Your task to perform on an android device: turn off translation in the chrome app Image 0: 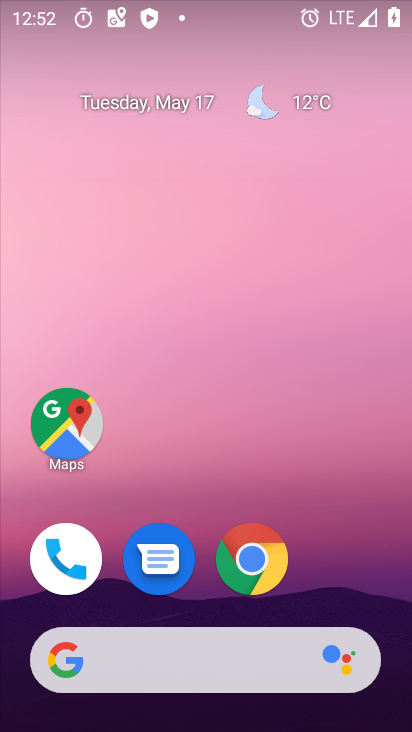
Step 0: click (255, 564)
Your task to perform on an android device: turn off translation in the chrome app Image 1: 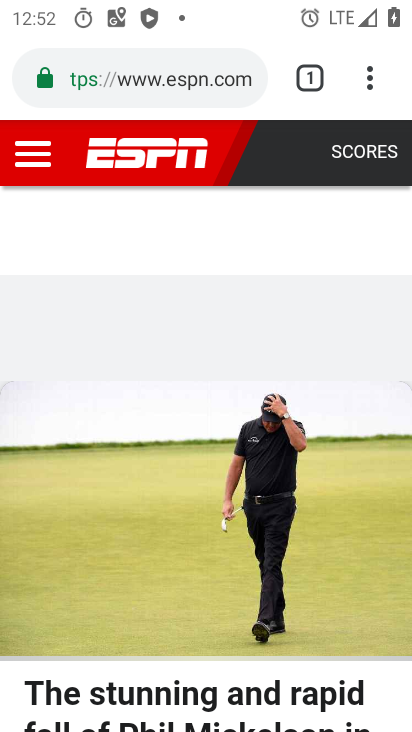
Step 1: drag from (370, 74) to (221, 604)
Your task to perform on an android device: turn off translation in the chrome app Image 2: 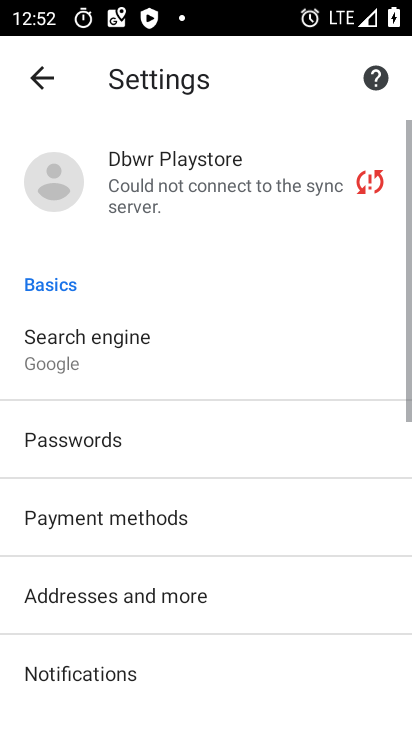
Step 2: drag from (226, 592) to (314, 97)
Your task to perform on an android device: turn off translation in the chrome app Image 3: 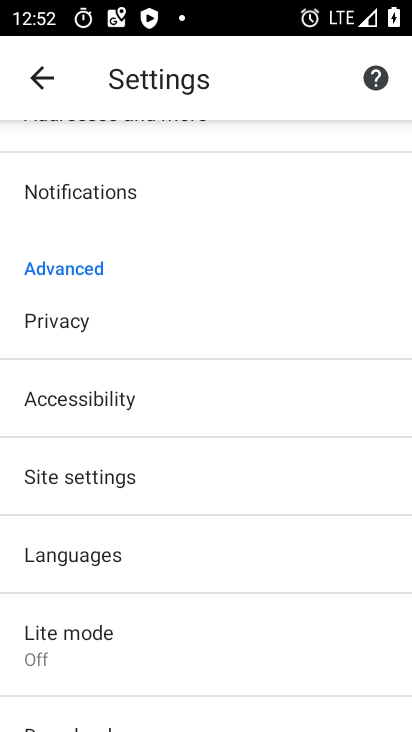
Step 3: drag from (199, 615) to (282, 409)
Your task to perform on an android device: turn off translation in the chrome app Image 4: 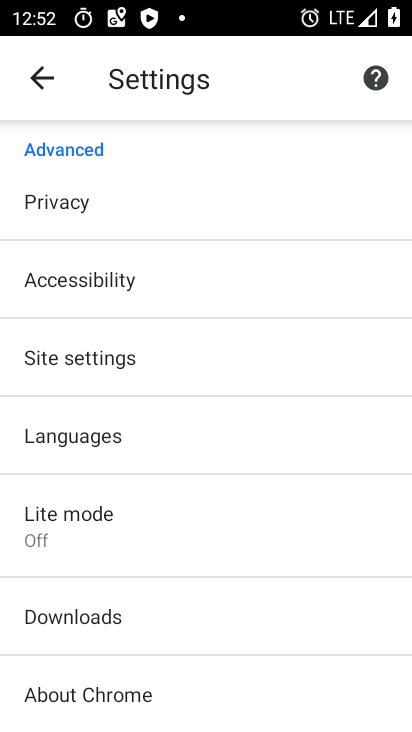
Step 4: click (85, 423)
Your task to perform on an android device: turn off translation in the chrome app Image 5: 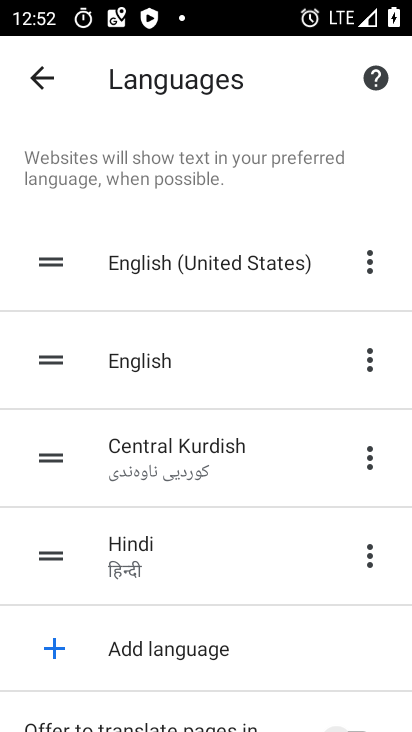
Step 5: task complete